Your task to perform on an android device: open app "NewsBreak: Local News & Alerts" (install if not already installed) Image 0: 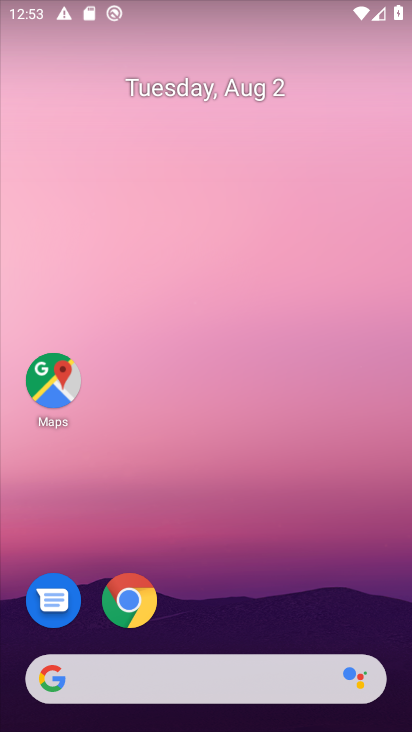
Step 0: press home button
Your task to perform on an android device: open app "NewsBreak: Local News & Alerts" (install if not already installed) Image 1: 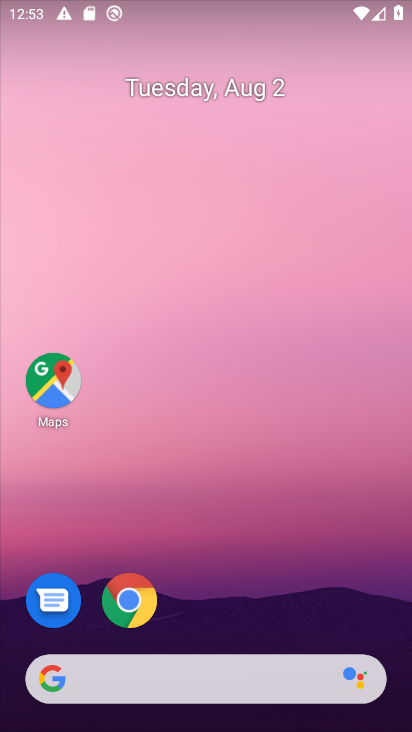
Step 1: click (158, 50)
Your task to perform on an android device: open app "NewsBreak: Local News & Alerts" (install if not already installed) Image 2: 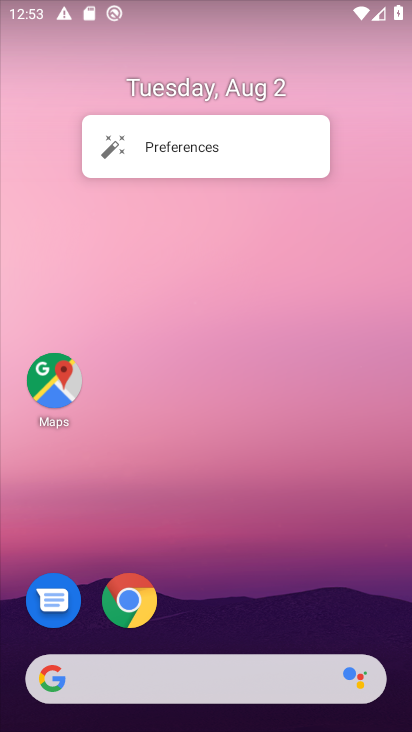
Step 2: drag from (235, 620) to (242, 29)
Your task to perform on an android device: open app "NewsBreak: Local News & Alerts" (install if not already installed) Image 3: 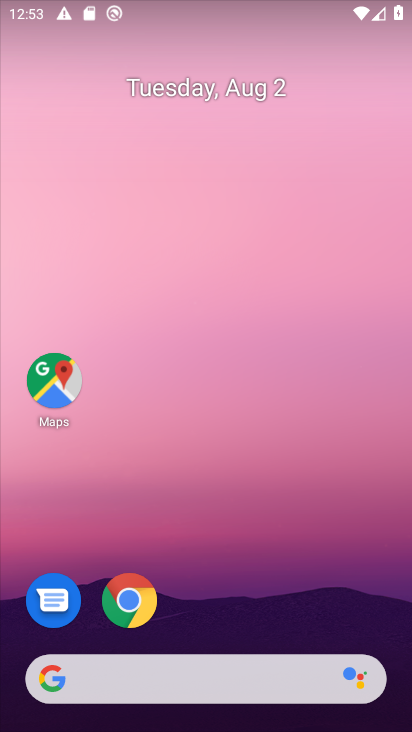
Step 3: drag from (207, 635) to (233, 48)
Your task to perform on an android device: open app "NewsBreak: Local News & Alerts" (install if not already installed) Image 4: 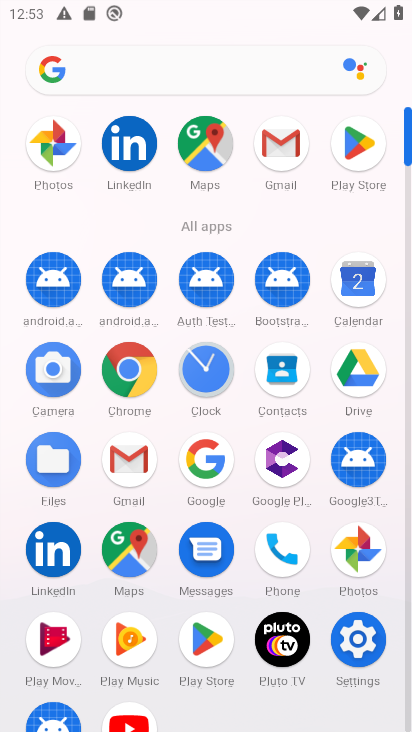
Step 4: click (354, 144)
Your task to perform on an android device: open app "NewsBreak: Local News & Alerts" (install if not already installed) Image 5: 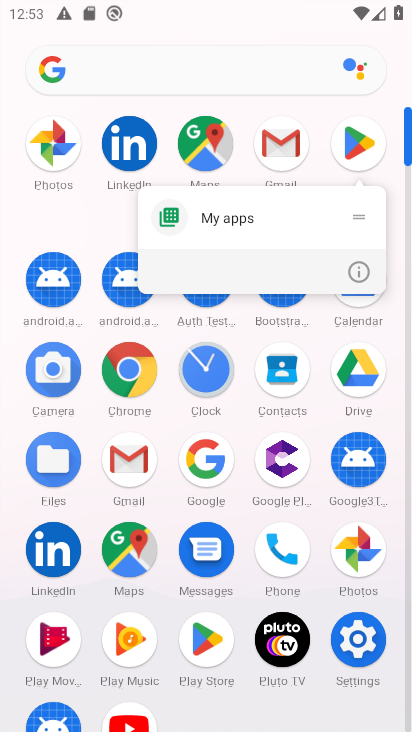
Step 5: click (354, 144)
Your task to perform on an android device: open app "NewsBreak: Local News & Alerts" (install if not already installed) Image 6: 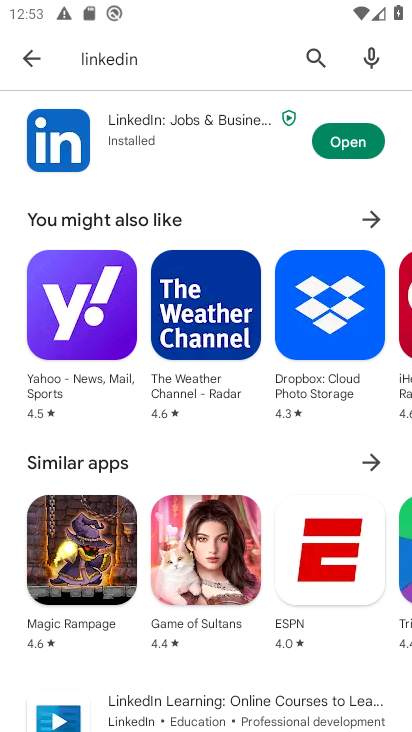
Step 6: click (310, 60)
Your task to perform on an android device: open app "NewsBreak: Local News & Alerts" (install if not already installed) Image 7: 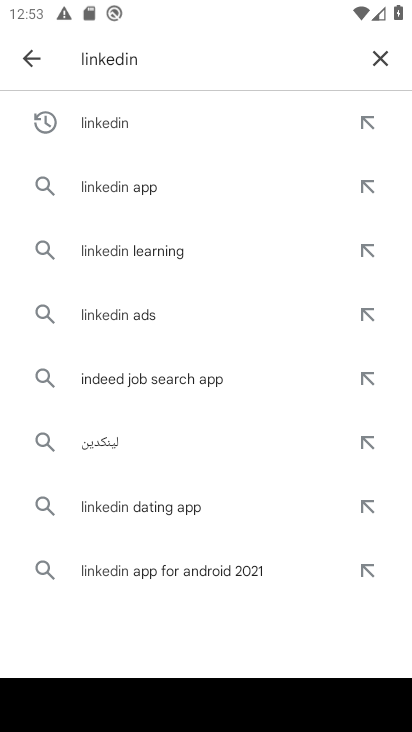
Step 7: click (380, 53)
Your task to perform on an android device: open app "NewsBreak: Local News & Alerts" (install if not already installed) Image 8: 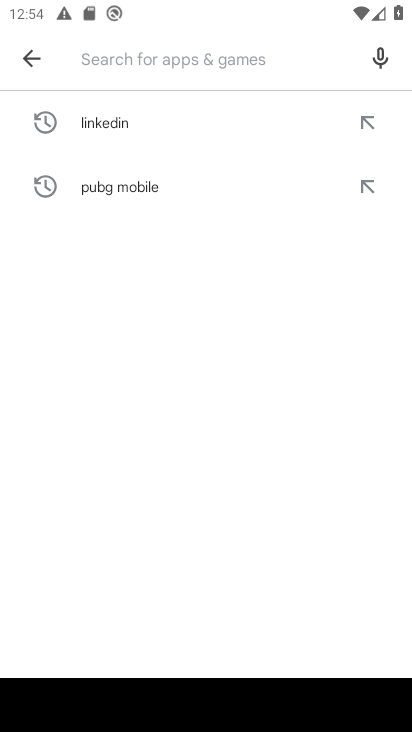
Step 8: type "NewsBreak: Local News & Alerts"
Your task to perform on an android device: open app "NewsBreak: Local News & Alerts" (install if not already installed) Image 9: 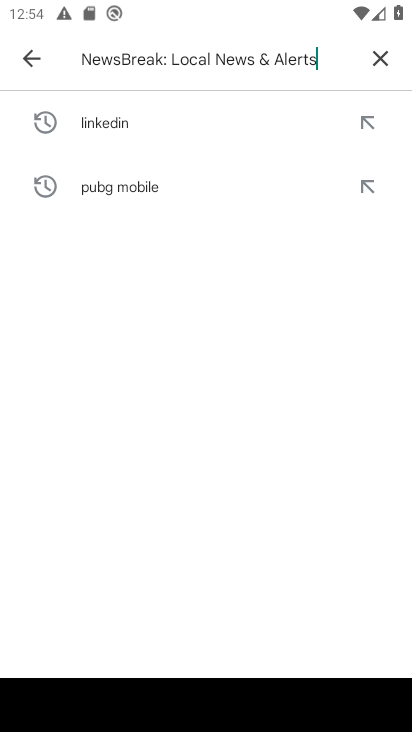
Step 9: type ""
Your task to perform on an android device: open app "NewsBreak: Local News & Alerts" (install if not already installed) Image 10: 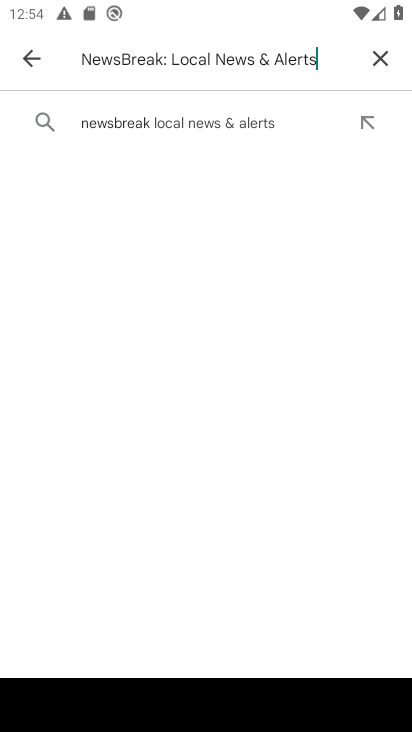
Step 10: click (171, 126)
Your task to perform on an android device: open app "NewsBreak: Local News & Alerts" (install if not already installed) Image 11: 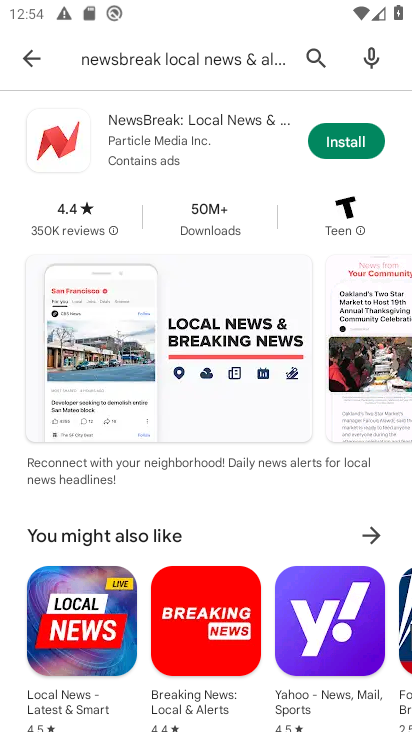
Step 11: click (342, 139)
Your task to perform on an android device: open app "NewsBreak: Local News & Alerts" (install if not already installed) Image 12: 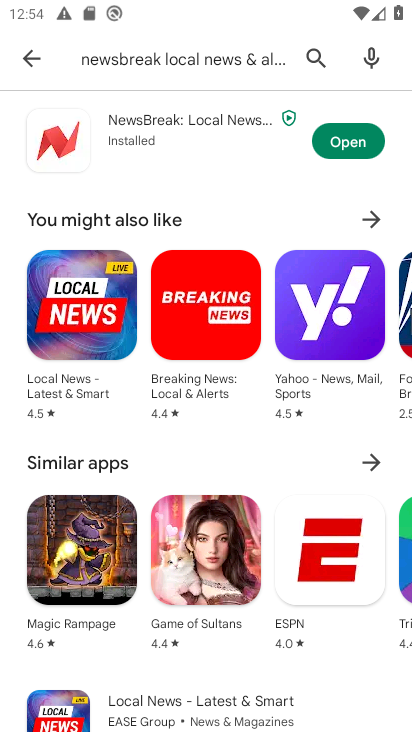
Step 12: click (344, 135)
Your task to perform on an android device: open app "NewsBreak: Local News & Alerts" (install if not already installed) Image 13: 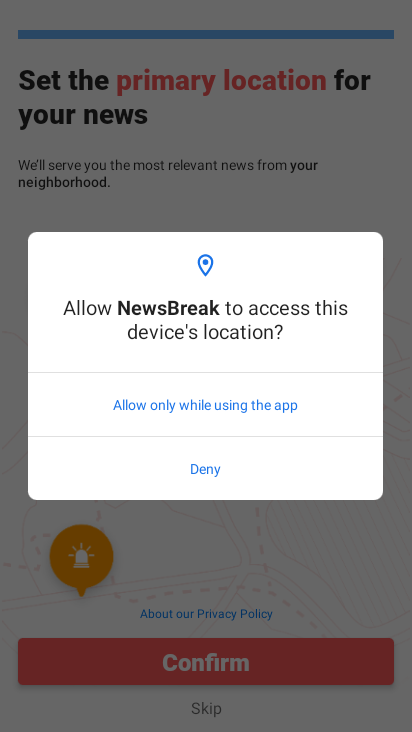
Step 13: click (187, 407)
Your task to perform on an android device: open app "NewsBreak: Local News & Alerts" (install if not already installed) Image 14: 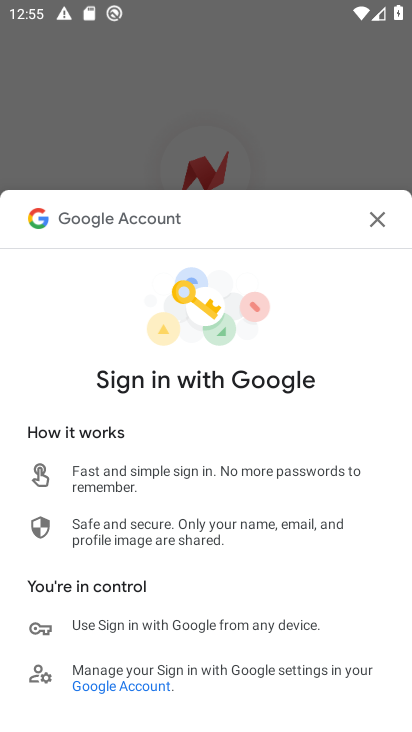
Step 14: click (373, 223)
Your task to perform on an android device: open app "NewsBreak: Local News & Alerts" (install if not already installed) Image 15: 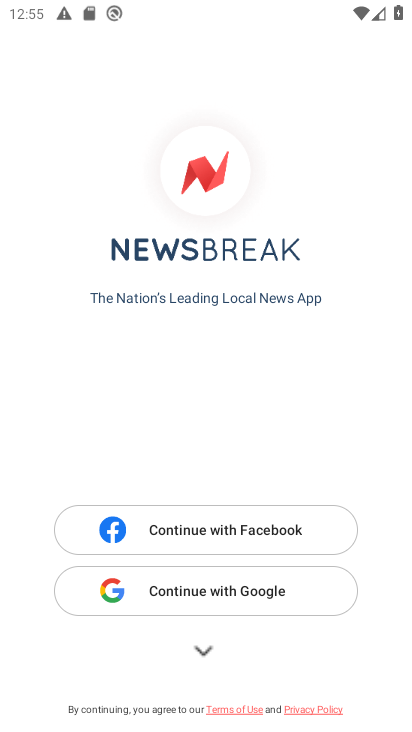
Step 15: click (202, 590)
Your task to perform on an android device: open app "NewsBreak: Local News & Alerts" (install if not already installed) Image 16: 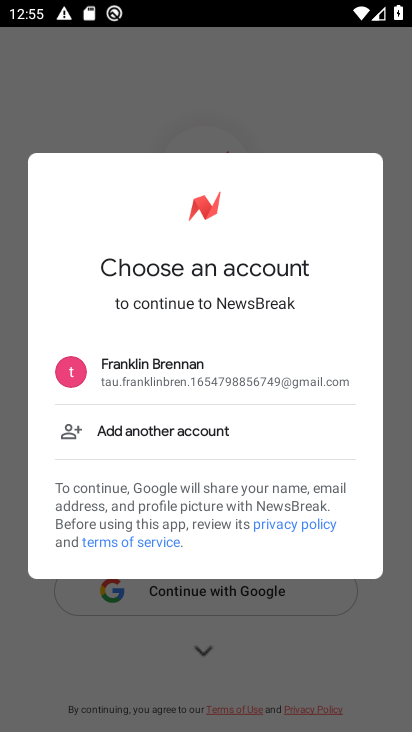
Step 16: click (186, 371)
Your task to perform on an android device: open app "NewsBreak: Local News & Alerts" (install if not already installed) Image 17: 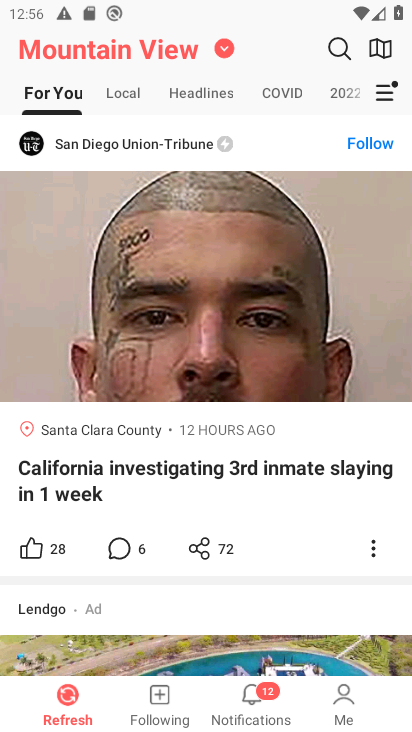
Step 17: task complete